Your task to perform on an android device: Empty the shopping cart on newegg. Search for apple airpods pro on newegg, select the first entry, add it to the cart, then select checkout. Image 0: 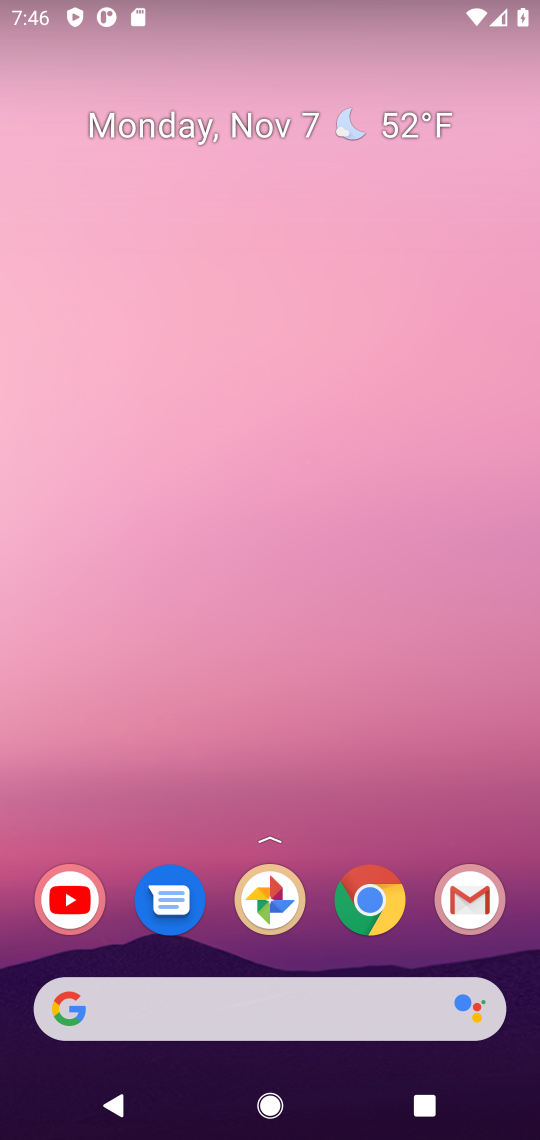
Step 0: click (330, 986)
Your task to perform on an android device: Empty the shopping cart on newegg. Search for apple airpods pro on newegg, select the first entry, add it to the cart, then select checkout. Image 1: 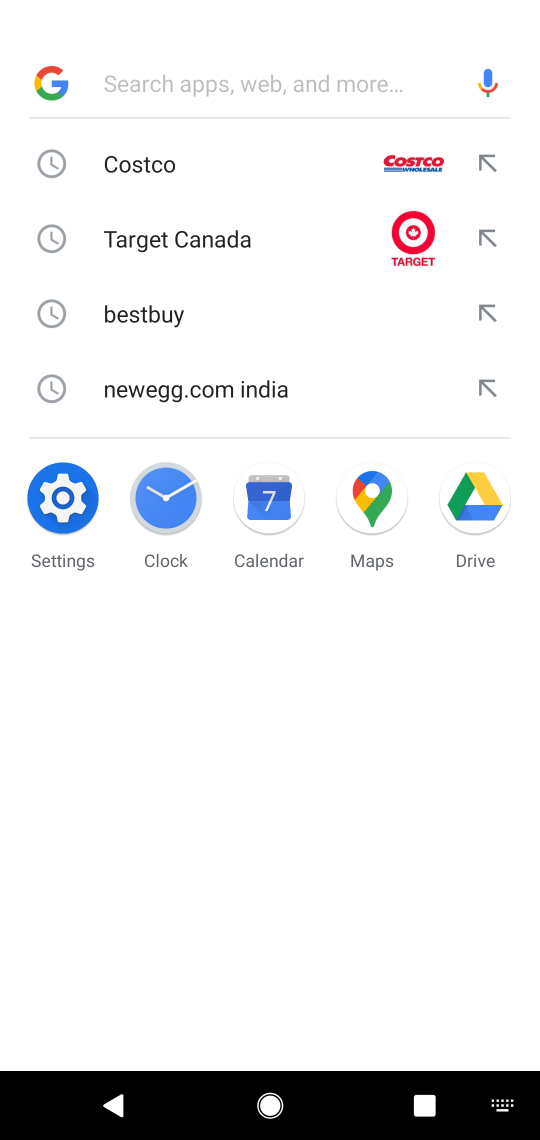
Step 1: click (167, 363)
Your task to perform on an android device: Empty the shopping cart on newegg. Search for apple airpods pro on newegg, select the first entry, add it to the cart, then select checkout. Image 2: 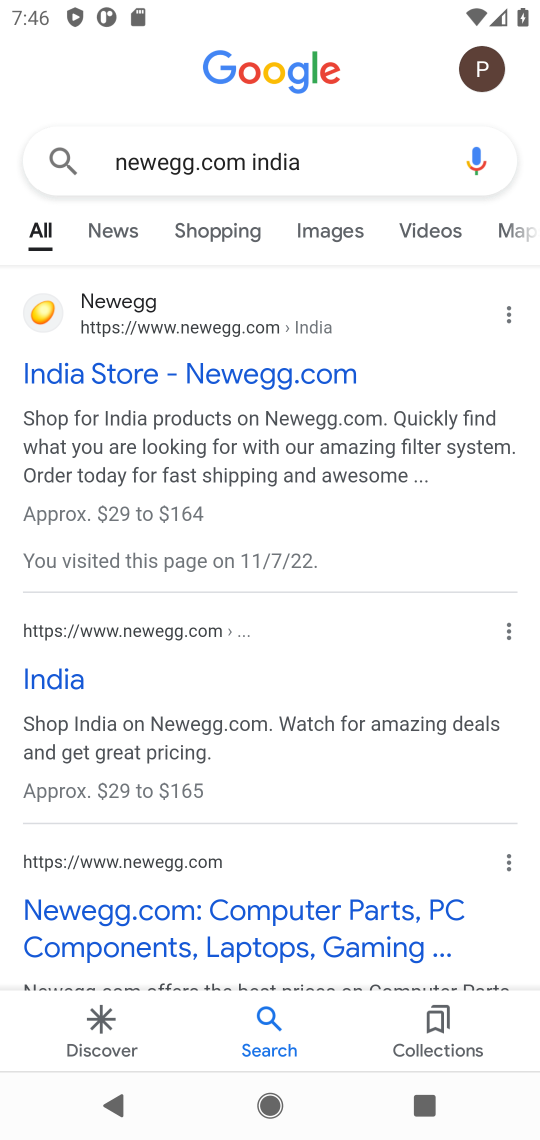
Step 2: click (167, 363)
Your task to perform on an android device: Empty the shopping cart on newegg. Search for apple airpods pro on newegg, select the first entry, add it to the cart, then select checkout. Image 3: 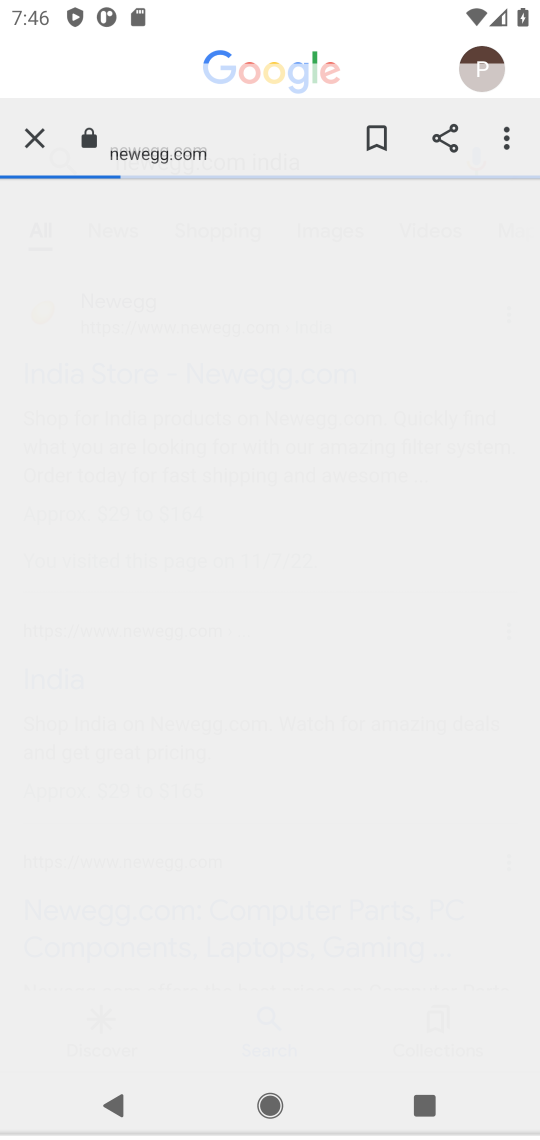
Step 3: click (211, 388)
Your task to perform on an android device: Empty the shopping cart on newegg. Search for apple airpods pro on newegg, select the first entry, add it to the cart, then select checkout. Image 4: 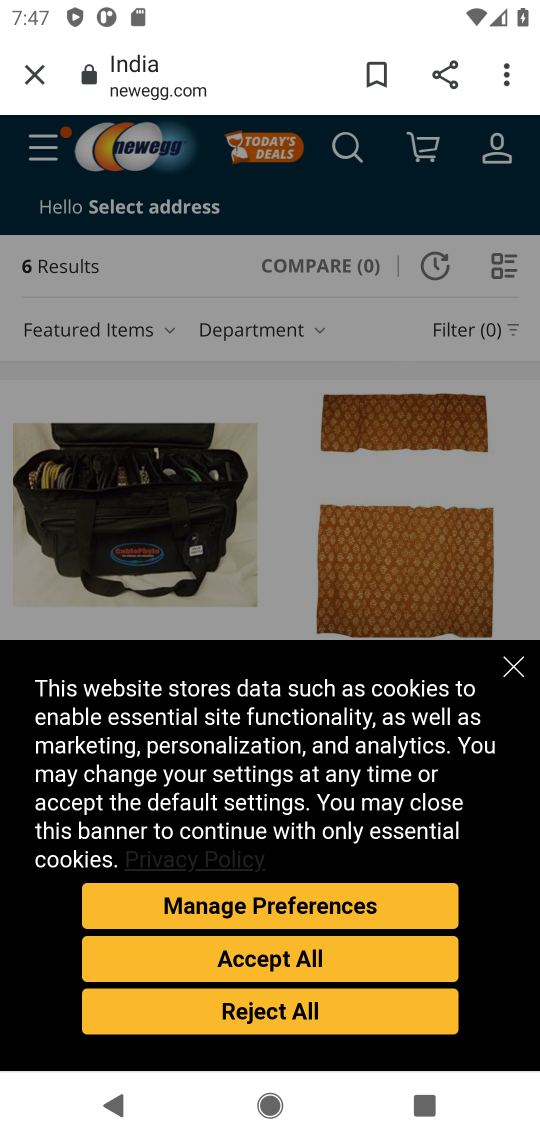
Step 4: task complete